Your task to perform on an android device: install app "WhatsApp Messenger" Image 0: 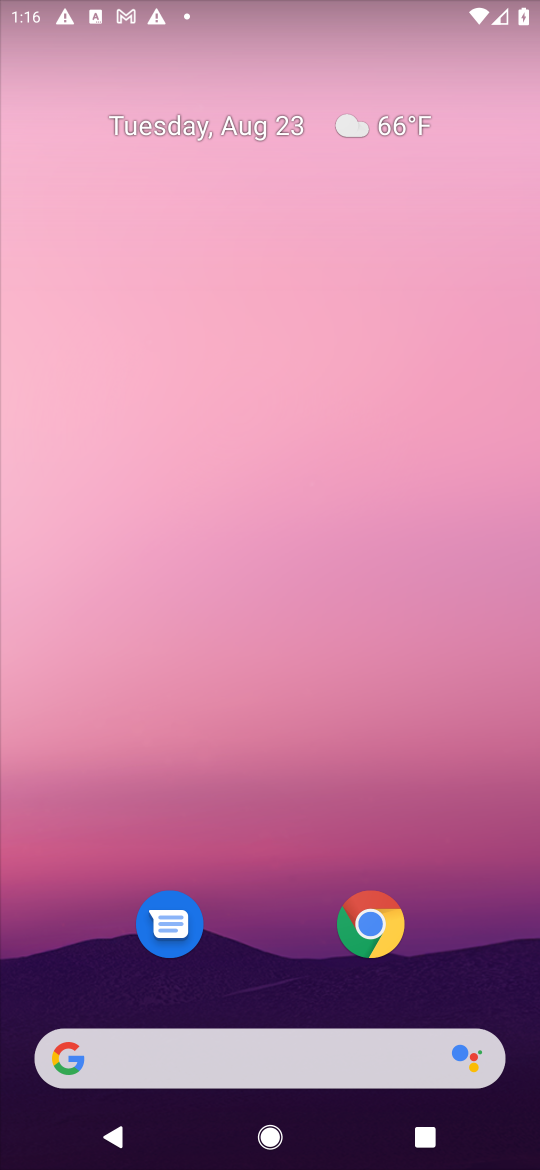
Step 0: press home button
Your task to perform on an android device: install app "WhatsApp Messenger" Image 1: 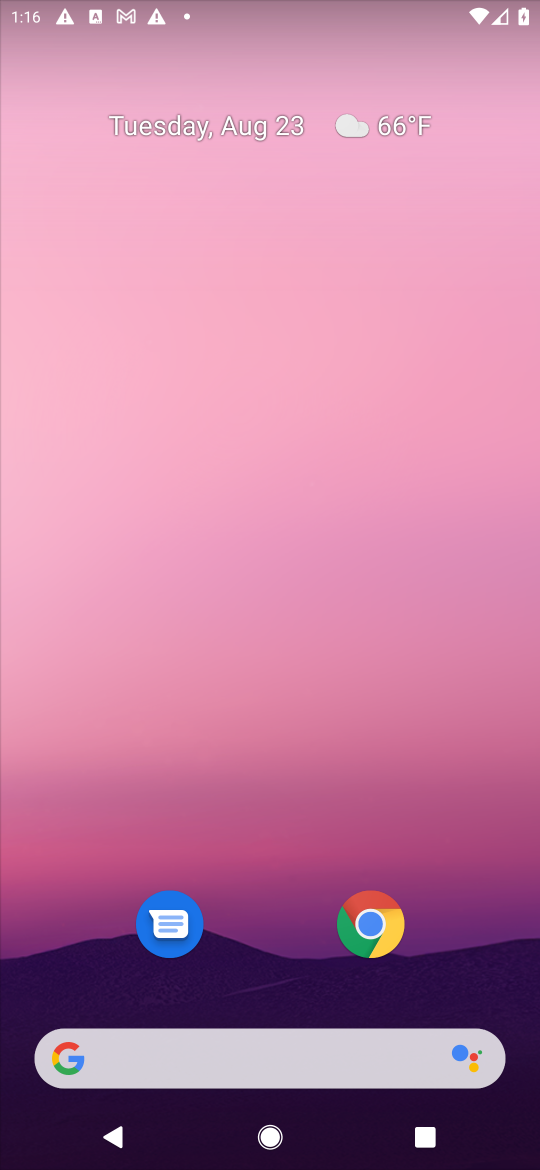
Step 1: drag from (453, 866) to (476, 112)
Your task to perform on an android device: install app "WhatsApp Messenger" Image 2: 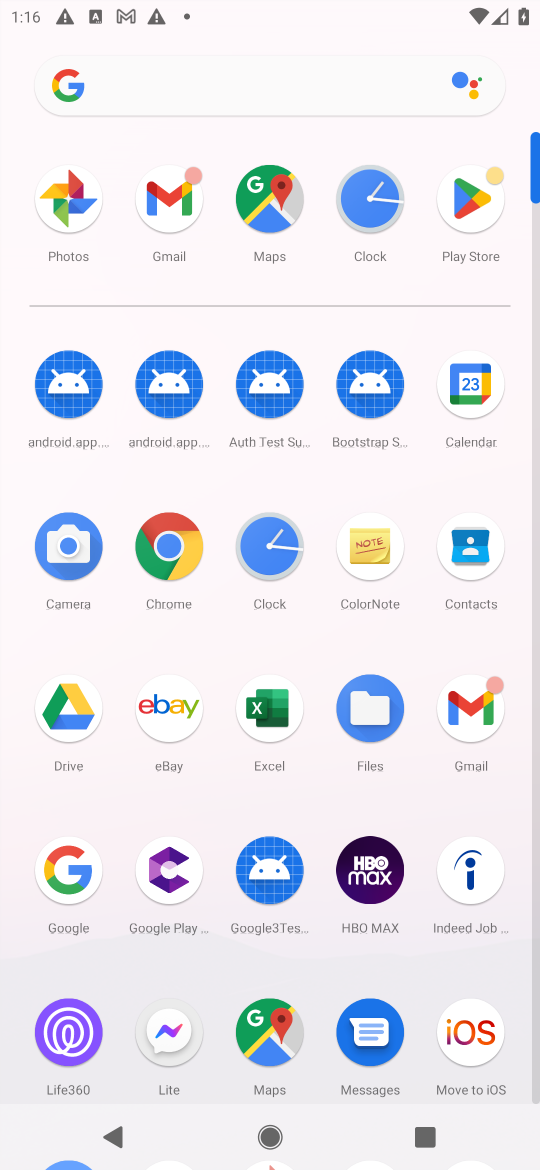
Step 2: click (470, 210)
Your task to perform on an android device: install app "WhatsApp Messenger" Image 3: 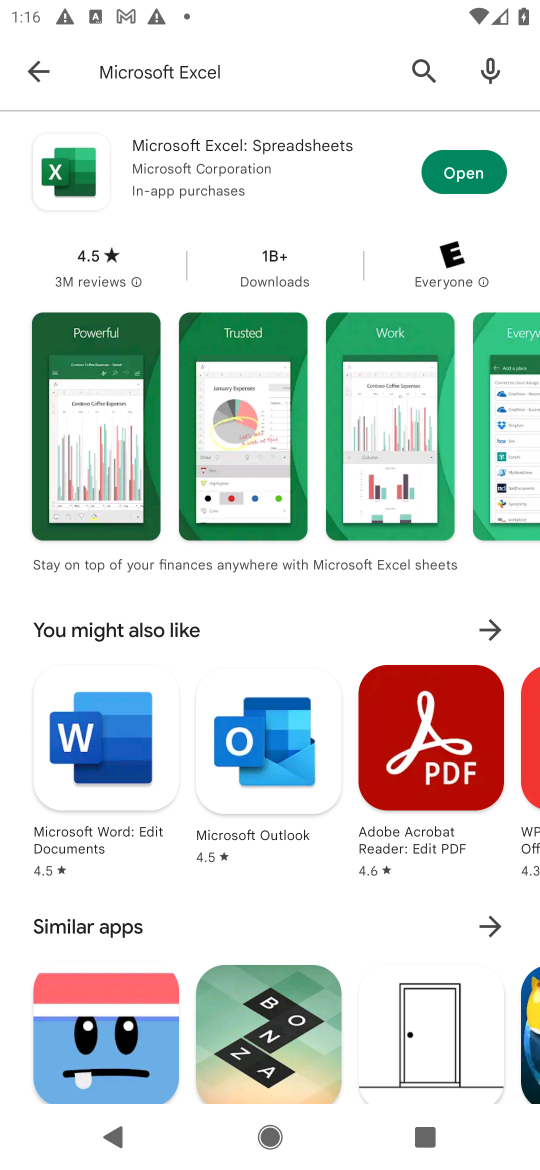
Step 3: press back button
Your task to perform on an android device: install app "WhatsApp Messenger" Image 4: 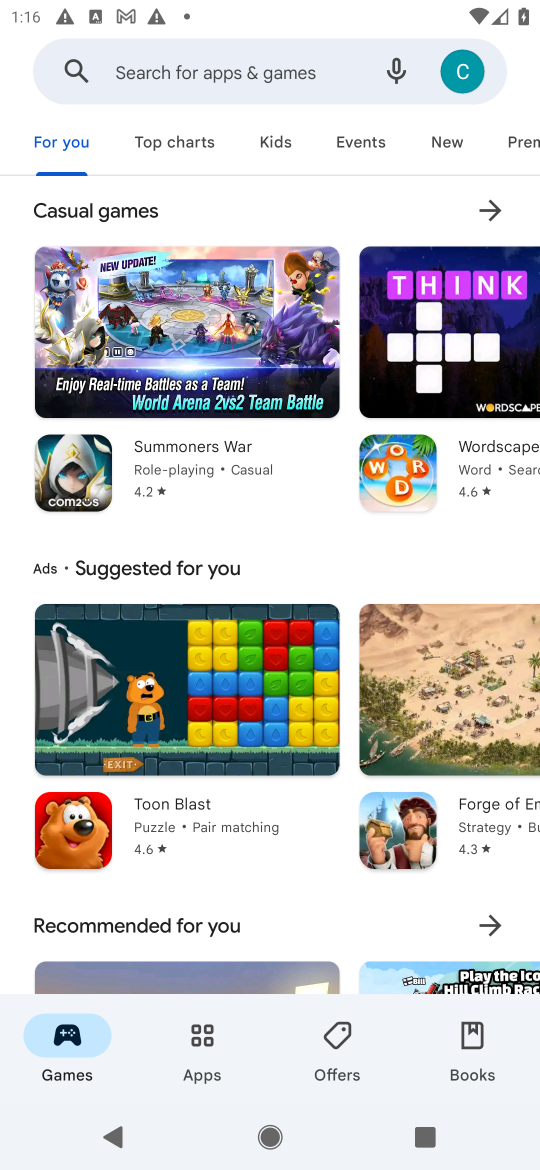
Step 4: click (131, 63)
Your task to perform on an android device: install app "WhatsApp Messenger" Image 5: 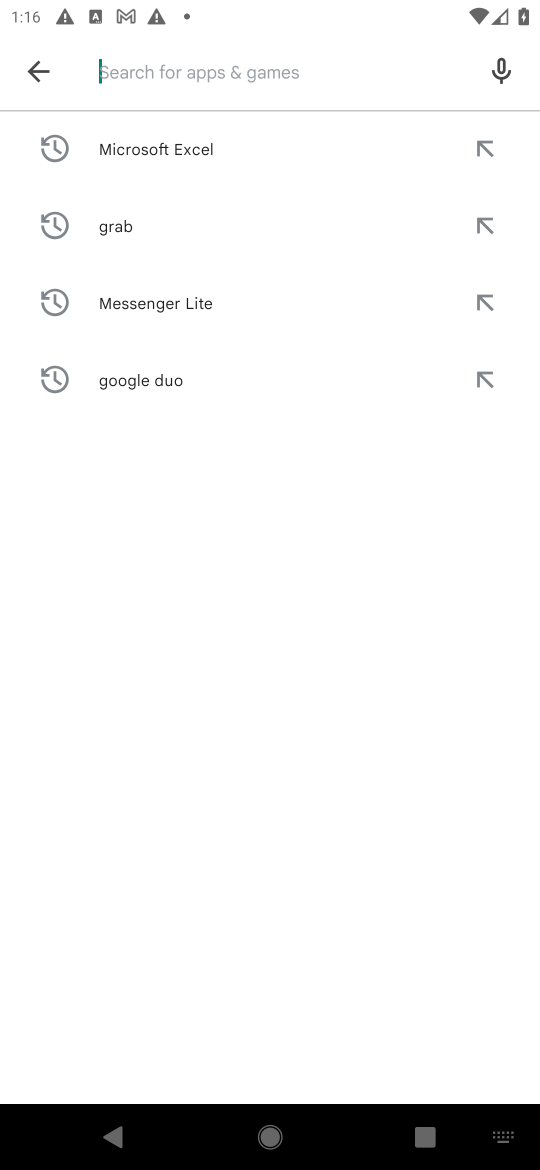
Step 5: type "WhatsApp Messenger"
Your task to perform on an android device: install app "WhatsApp Messenger" Image 6: 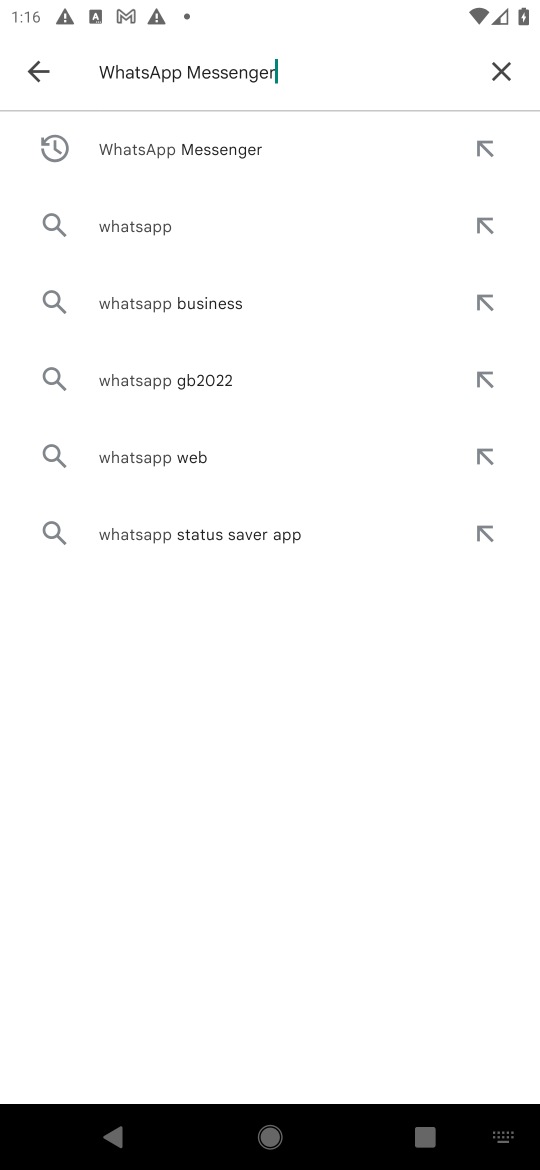
Step 6: press enter
Your task to perform on an android device: install app "WhatsApp Messenger" Image 7: 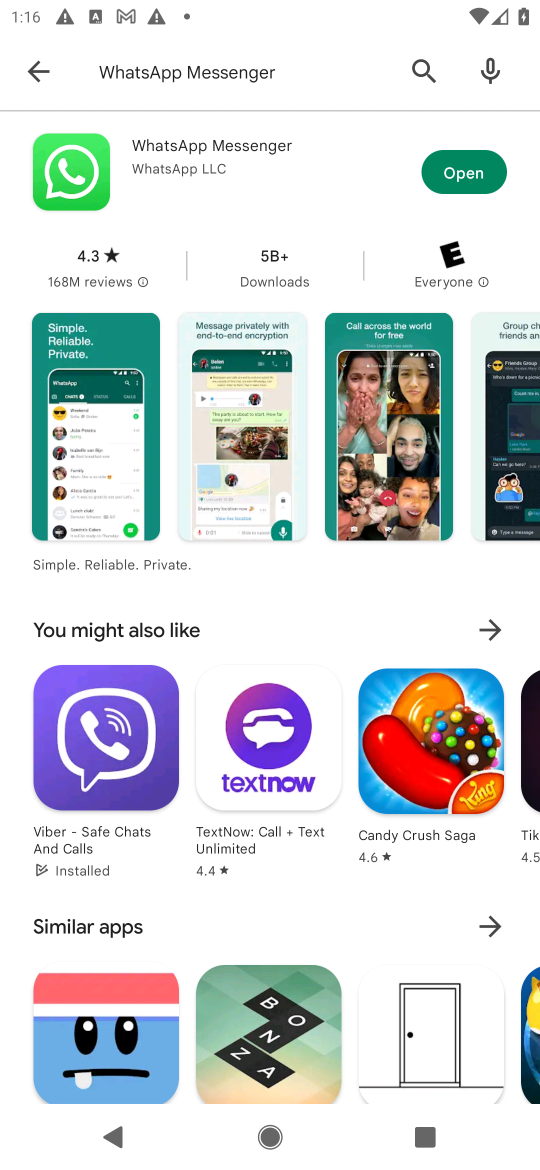
Step 7: task complete